Your task to perform on an android device: Do I have any events tomorrow? Image 0: 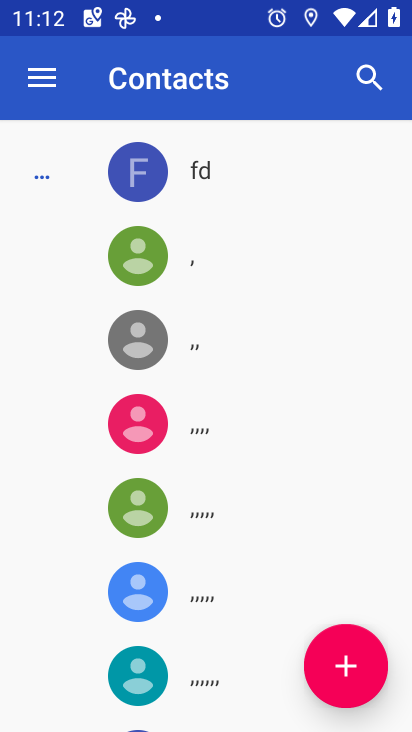
Step 0: press home button
Your task to perform on an android device: Do I have any events tomorrow? Image 1: 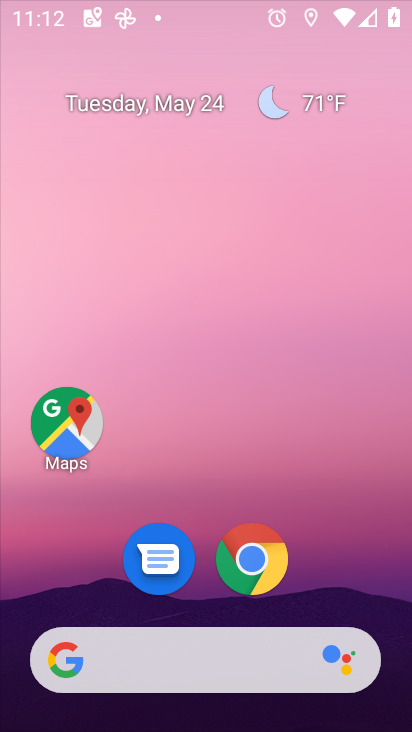
Step 1: drag from (393, 642) to (266, 41)
Your task to perform on an android device: Do I have any events tomorrow? Image 2: 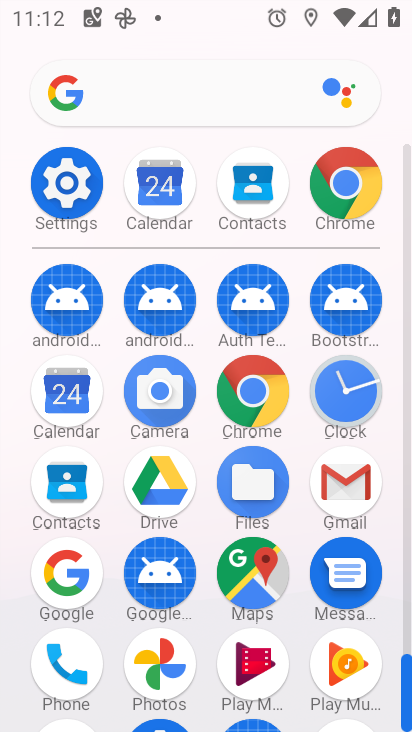
Step 2: click (66, 399)
Your task to perform on an android device: Do I have any events tomorrow? Image 3: 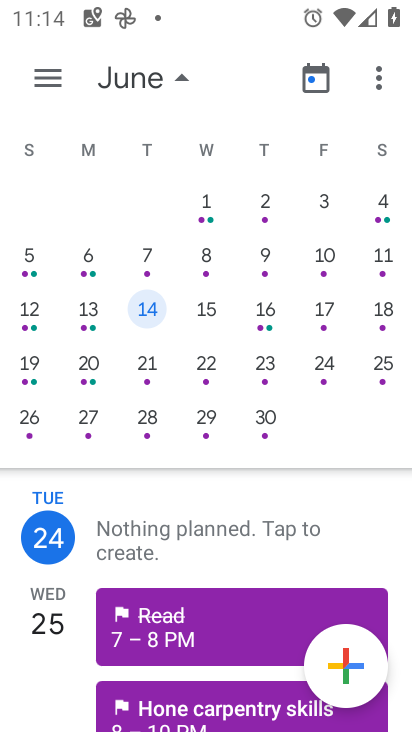
Step 3: task complete